Your task to perform on an android device: open app "Google Maps" Image 0: 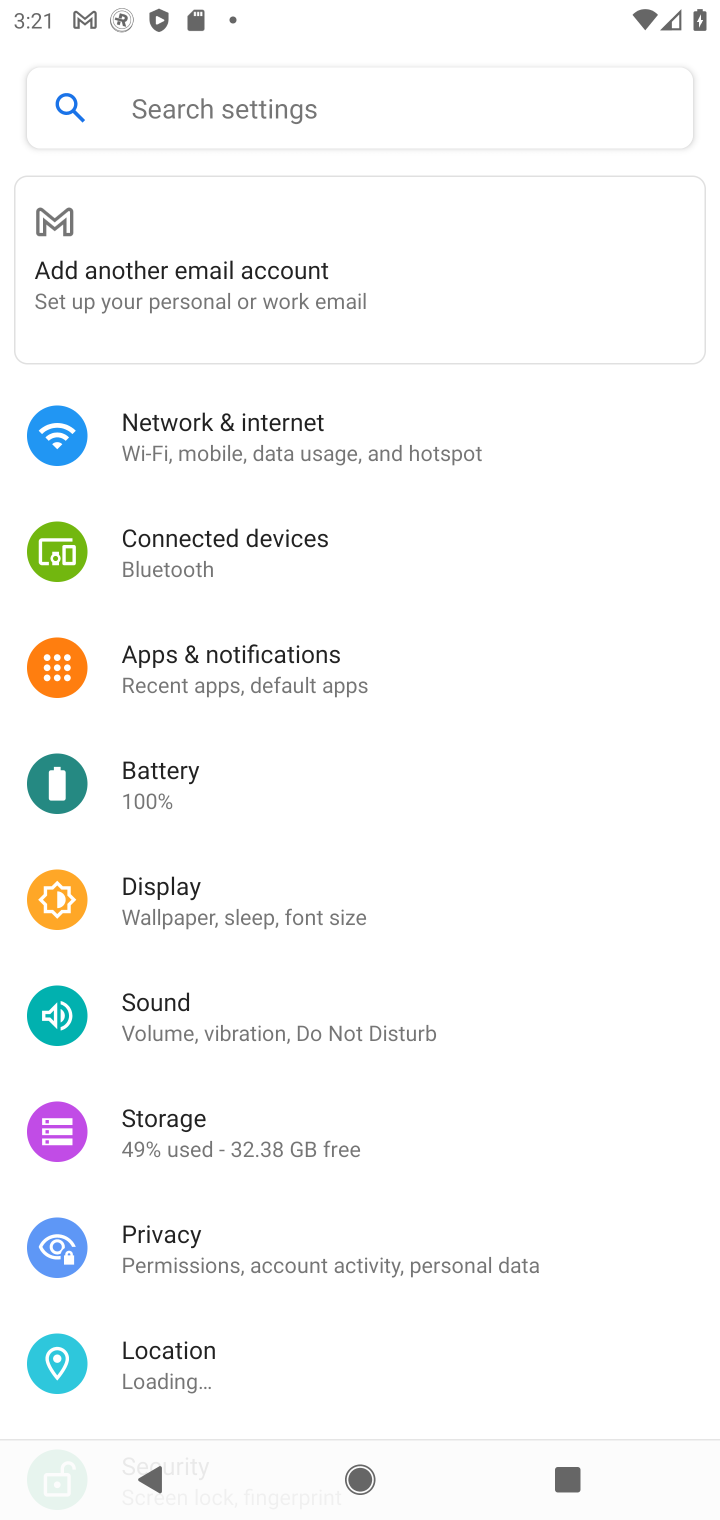
Step 0: press home button
Your task to perform on an android device: open app "Google Maps" Image 1: 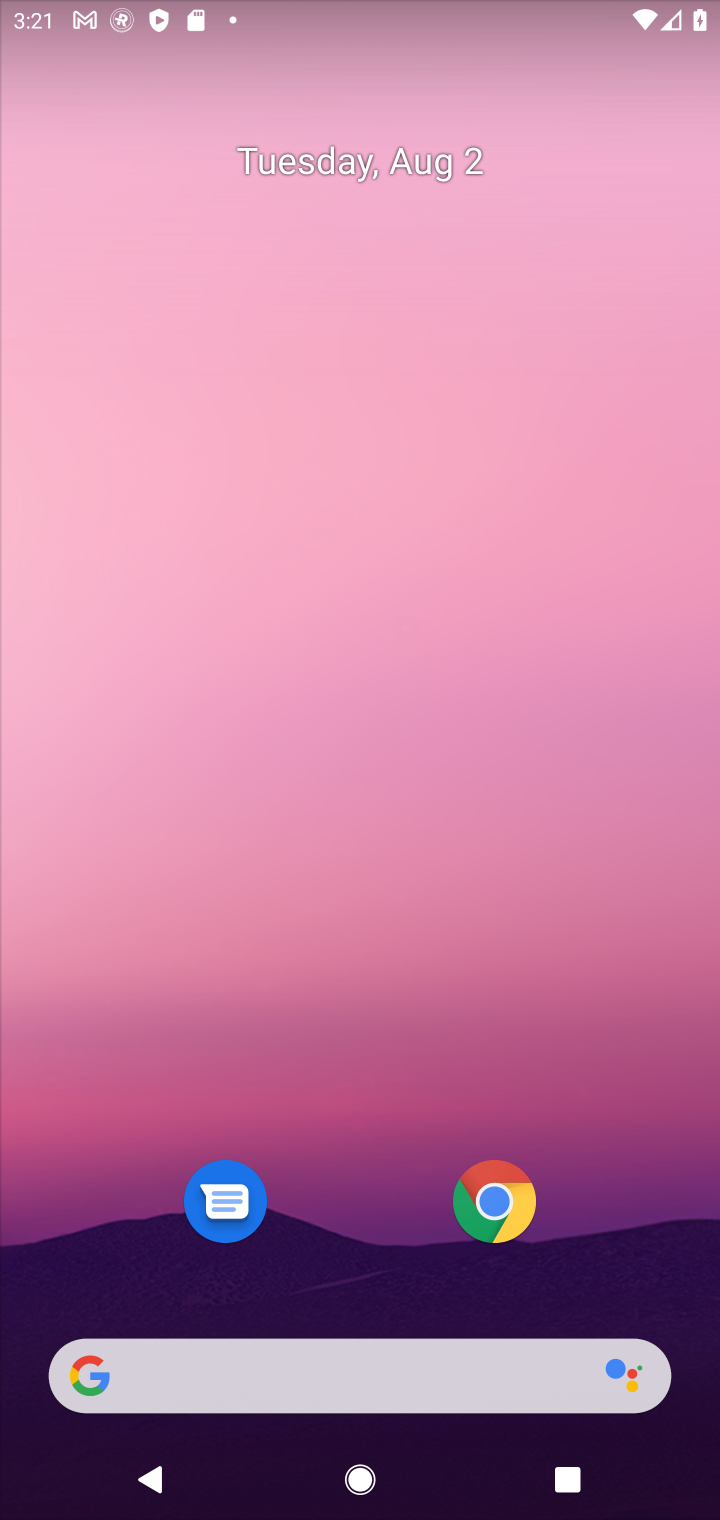
Step 1: drag from (350, 1251) to (367, 39)
Your task to perform on an android device: open app "Google Maps" Image 2: 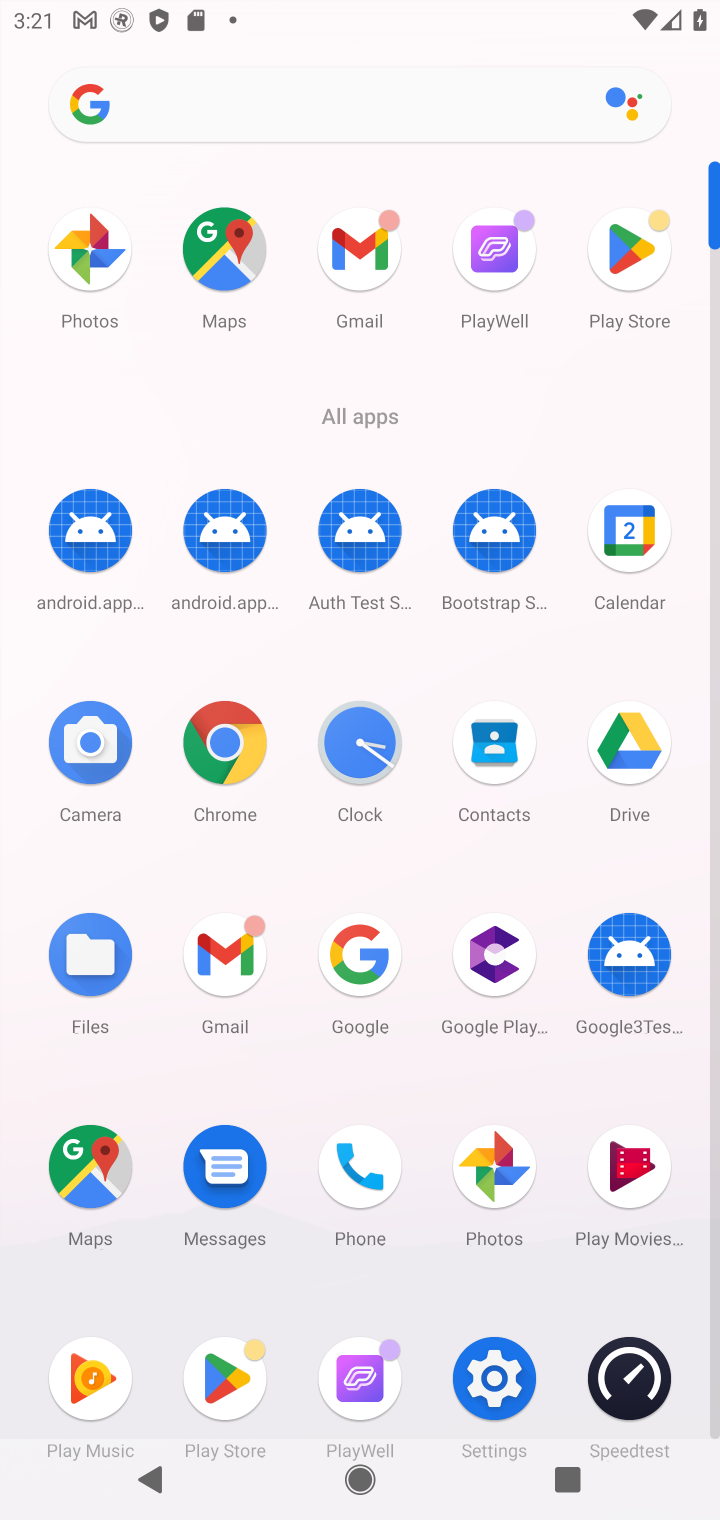
Step 2: click (618, 236)
Your task to perform on an android device: open app "Google Maps" Image 3: 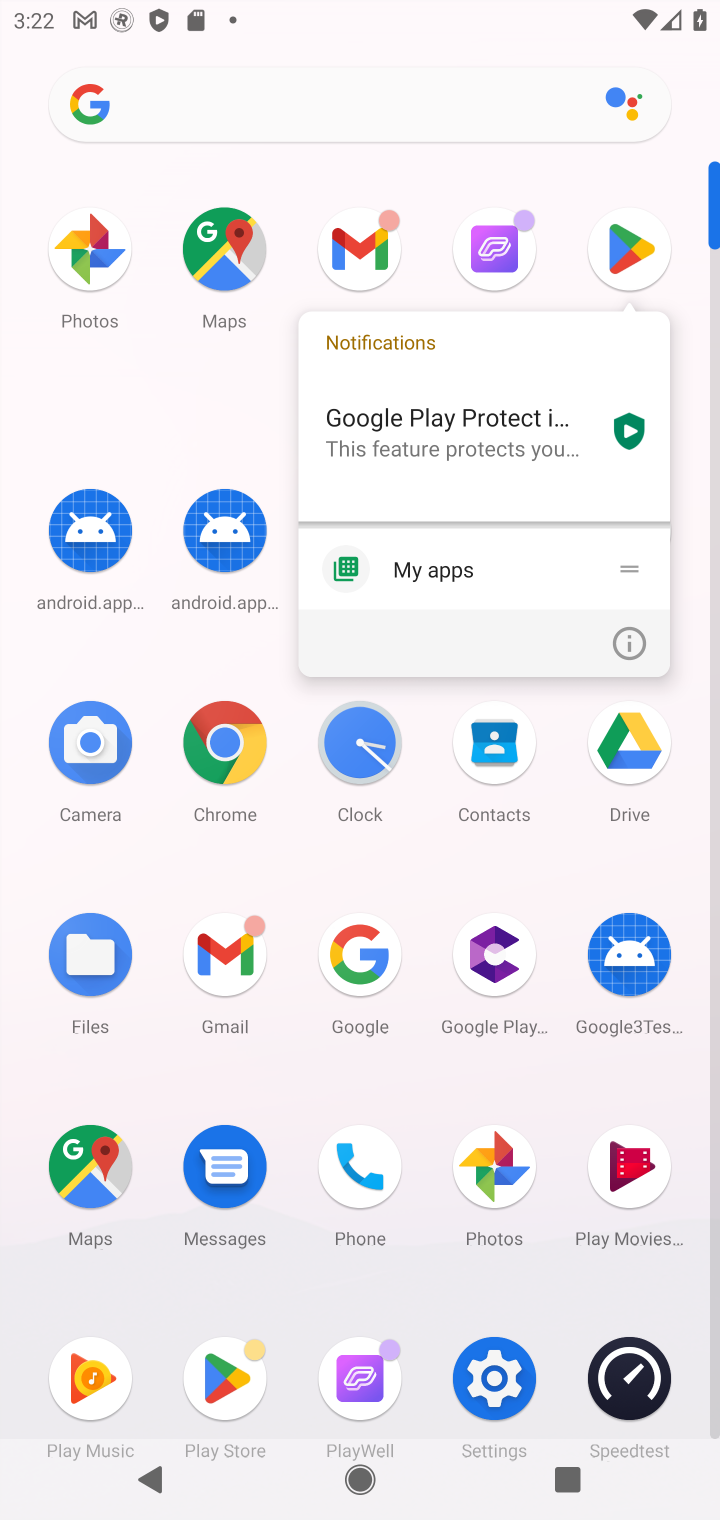
Step 3: click (630, 222)
Your task to perform on an android device: open app "Google Maps" Image 4: 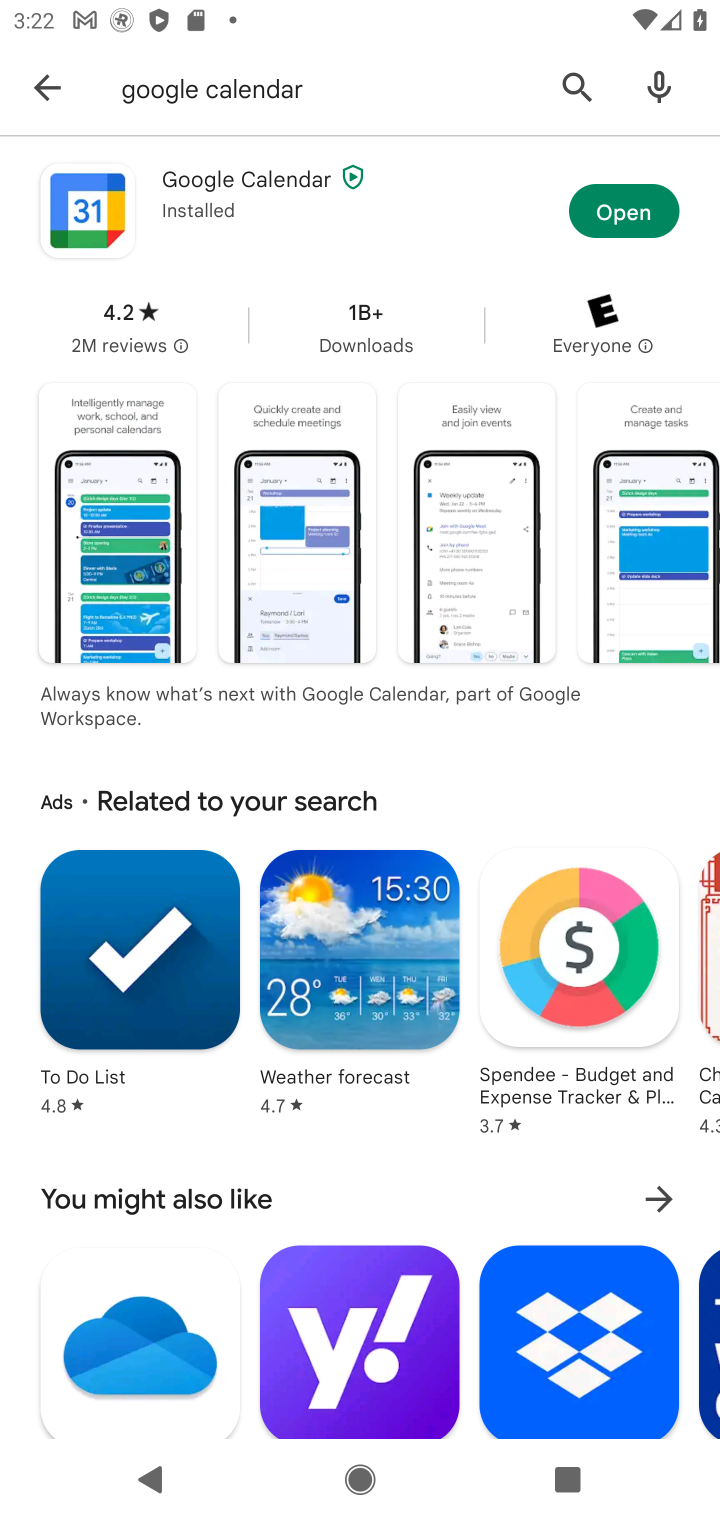
Step 4: click (561, 88)
Your task to perform on an android device: open app "Google Maps" Image 5: 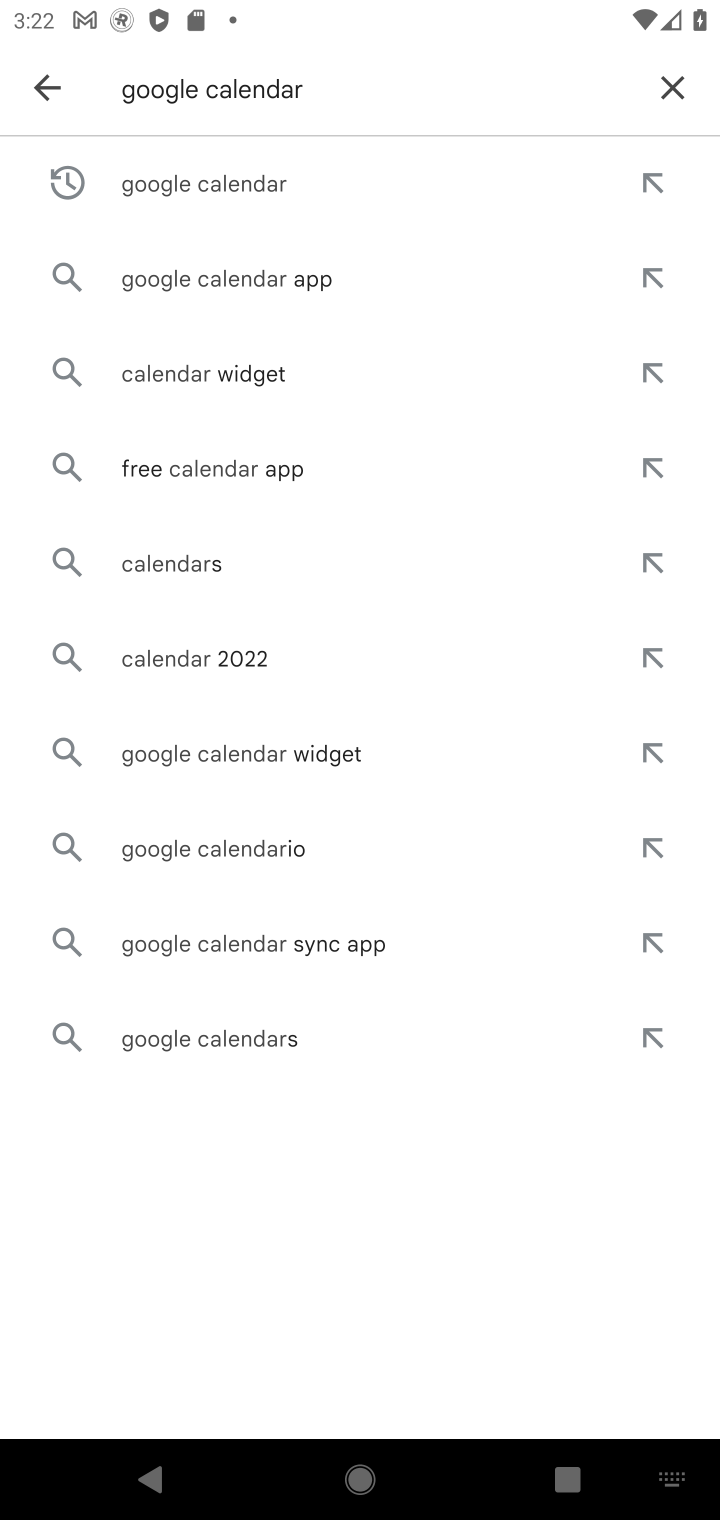
Step 5: click (669, 74)
Your task to perform on an android device: open app "Google Maps" Image 6: 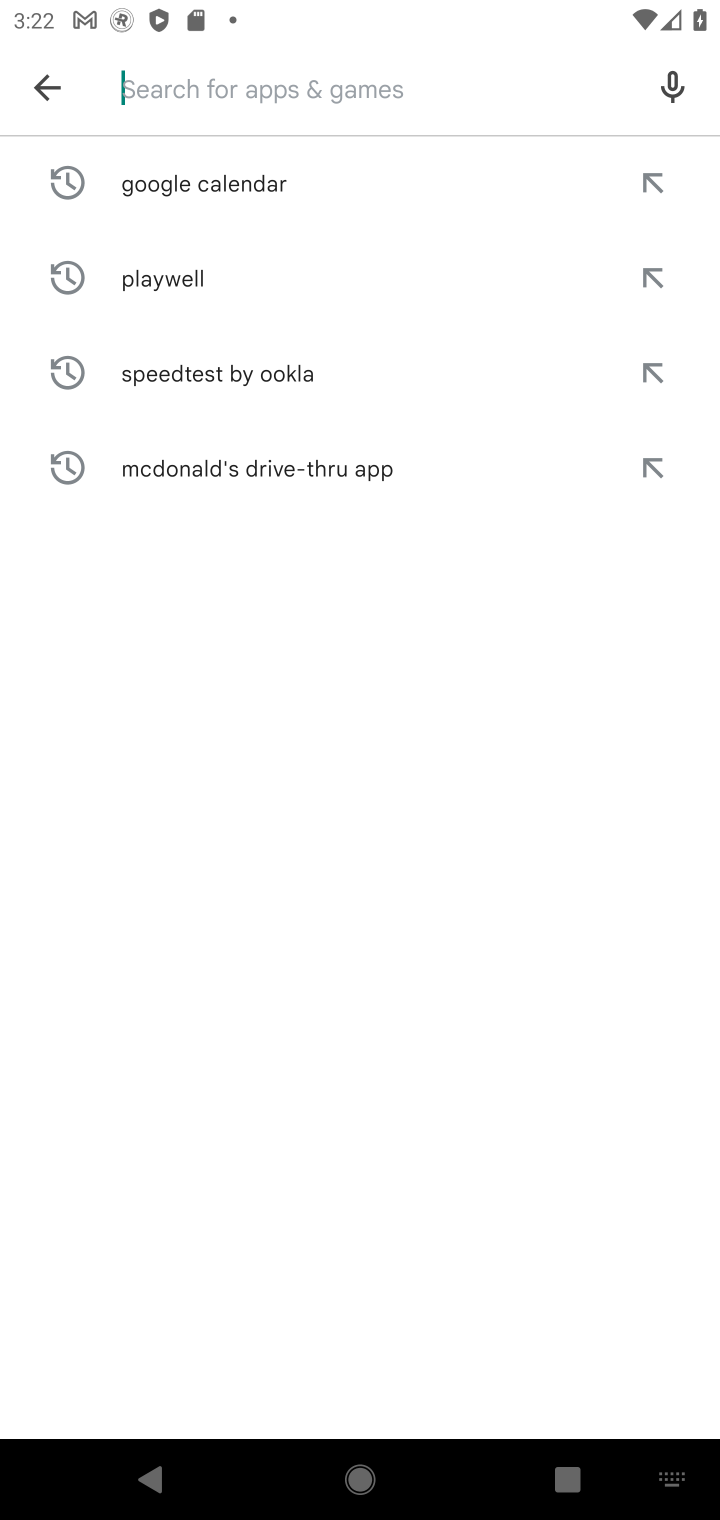
Step 6: type "Google Maps"
Your task to perform on an android device: open app "Google Maps" Image 7: 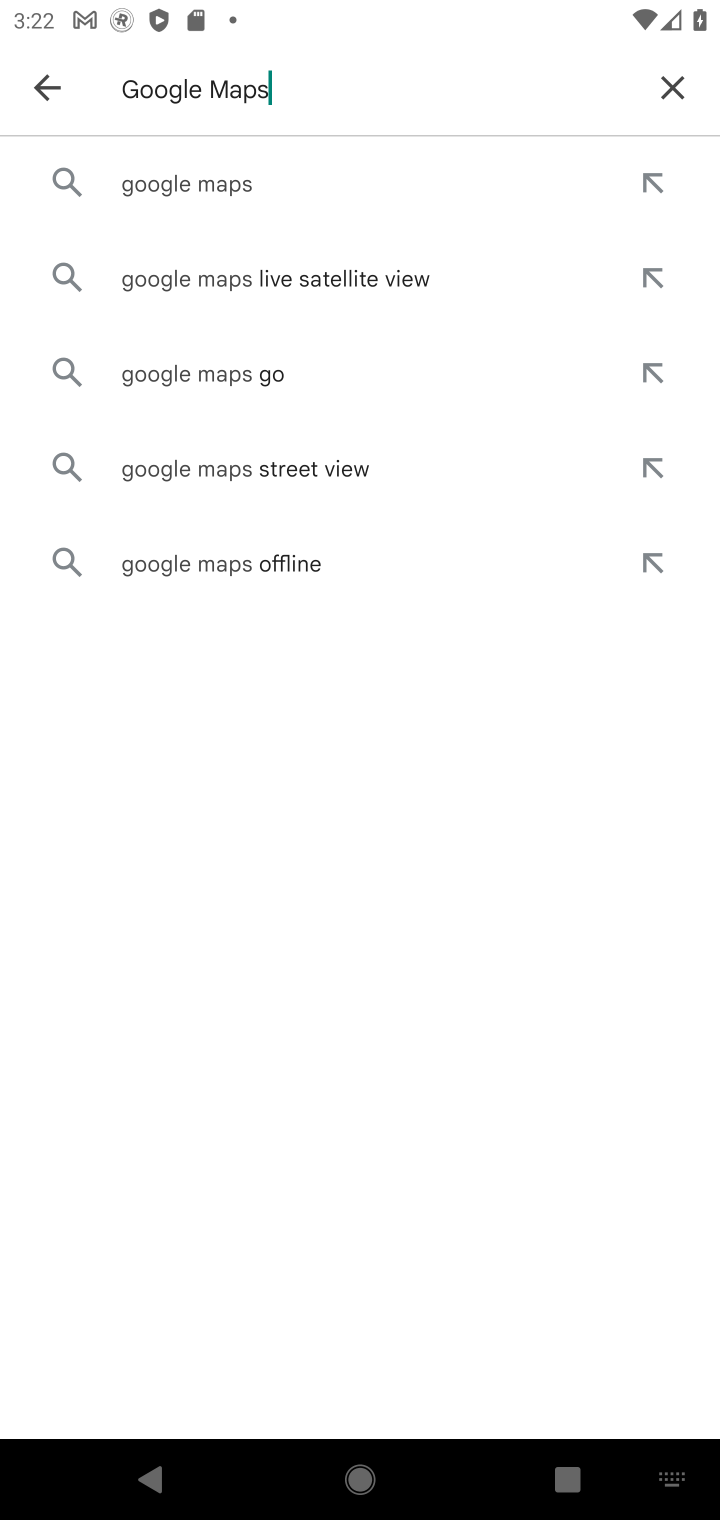
Step 7: click (203, 169)
Your task to perform on an android device: open app "Google Maps" Image 8: 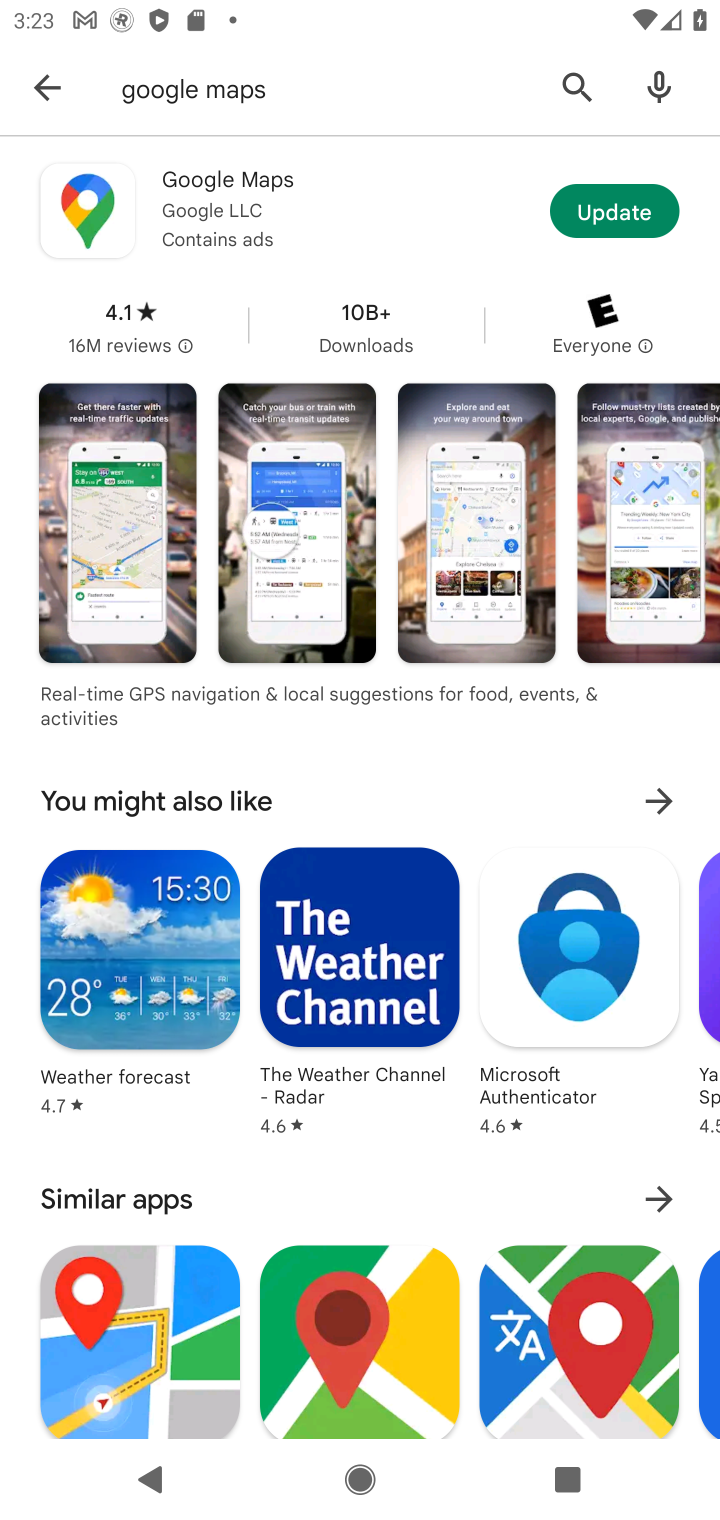
Step 8: click (592, 209)
Your task to perform on an android device: open app "Google Maps" Image 9: 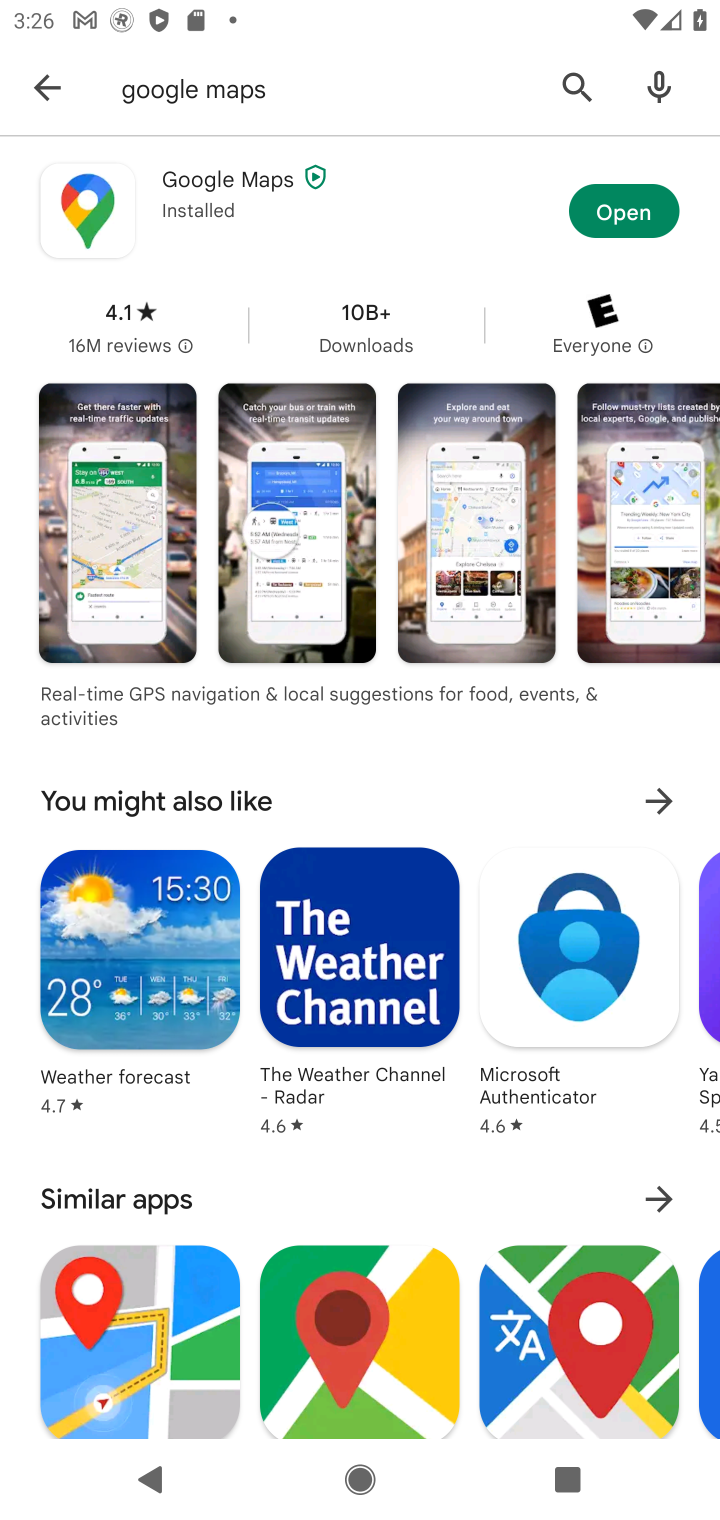
Step 9: click (643, 215)
Your task to perform on an android device: open app "Google Maps" Image 10: 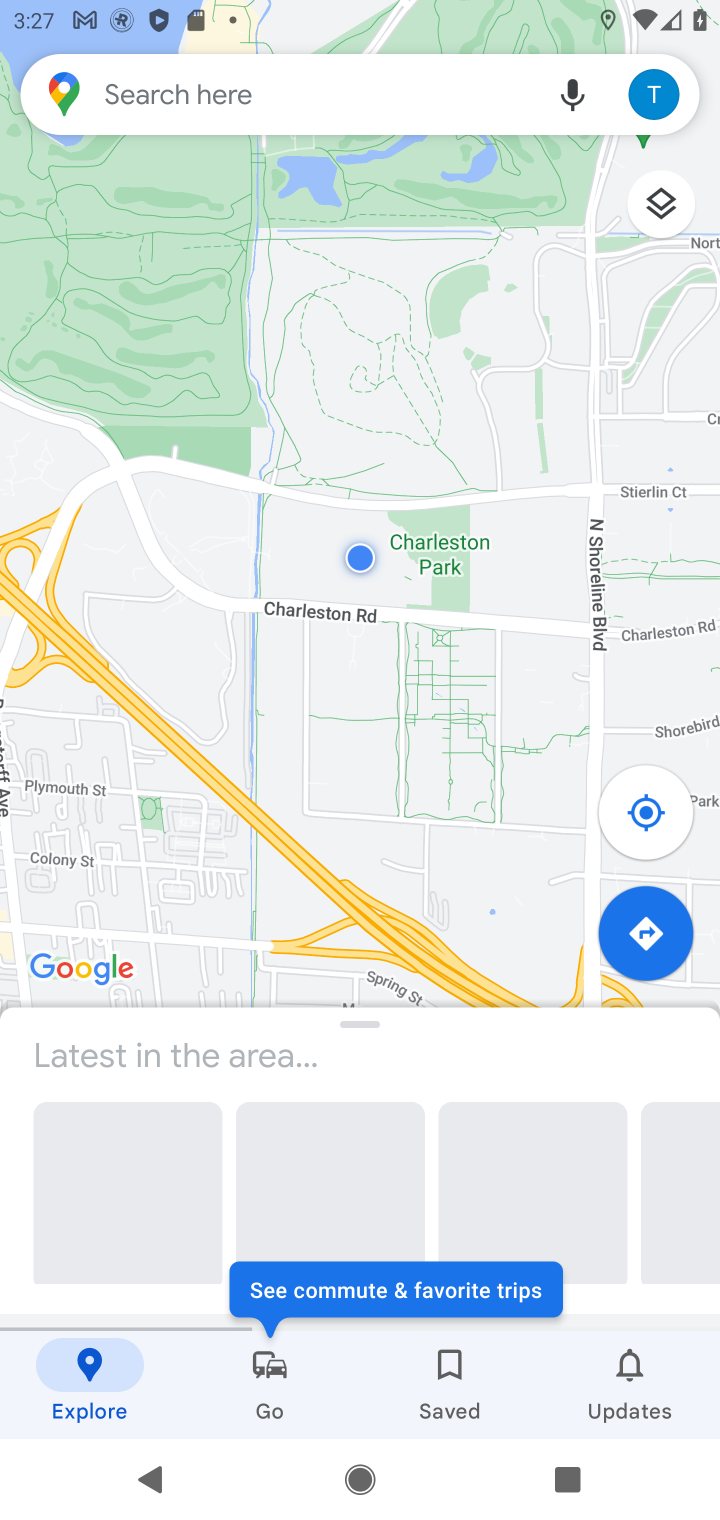
Step 10: task complete